Your task to perform on an android device: change your default location settings in chrome Image 0: 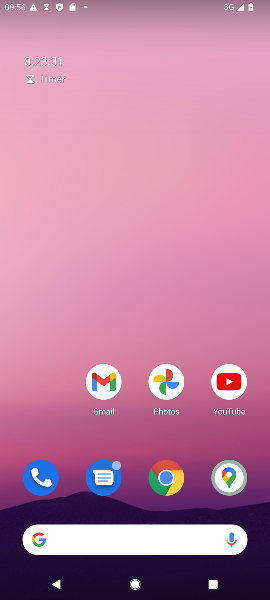
Step 0: click (165, 483)
Your task to perform on an android device: change your default location settings in chrome Image 1: 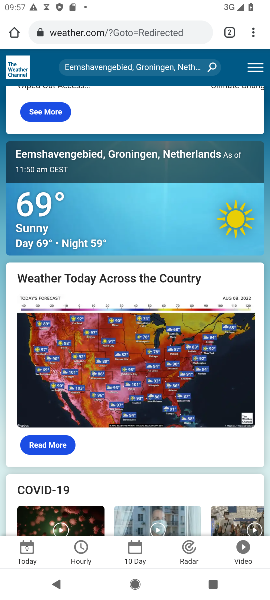
Step 1: click (252, 33)
Your task to perform on an android device: change your default location settings in chrome Image 2: 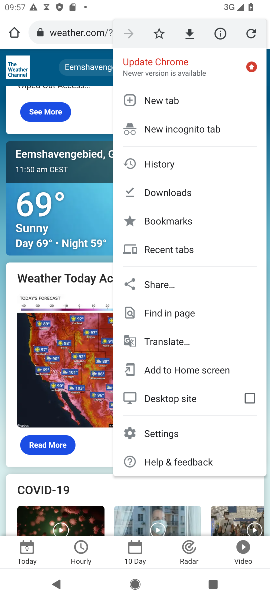
Step 2: click (190, 425)
Your task to perform on an android device: change your default location settings in chrome Image 3: 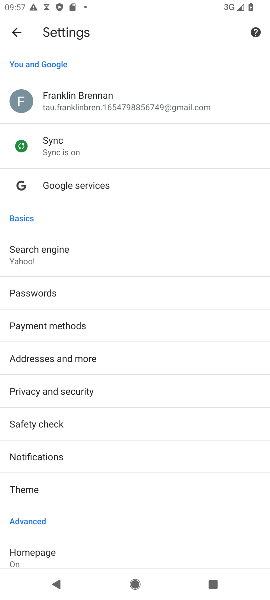
Step 3: drag from (138, 535) to (111, 256)
Your task to perform on an android device: change your default location settings in chrome Image 4: 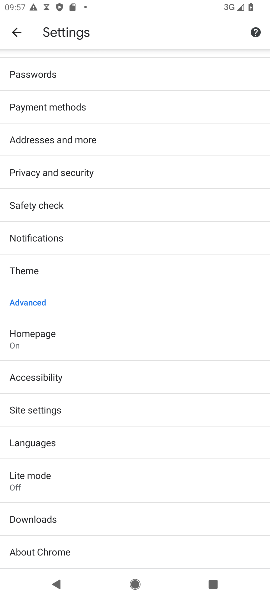
Step 4: click (74, 407)
Your task to perform on an android device: change your default location settings in chrome Image 5: 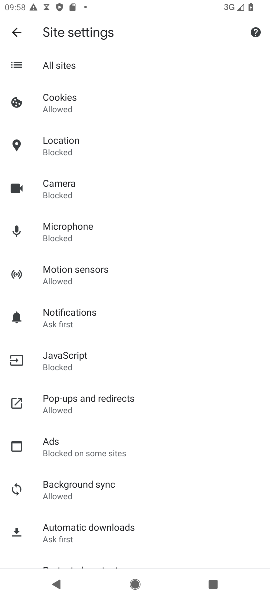
Step 5: click (131, 148)
Your task to perform on an android device: change your default location settings in chrome Image 6: 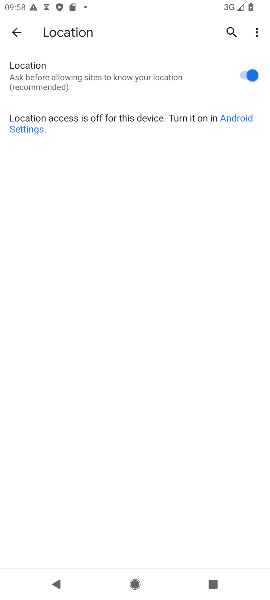
Step 6: click (257, 24)
Your task to perform on an android device: change your default location settings in chrome Image 7: 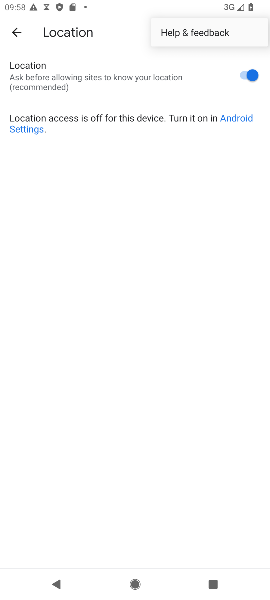
Step 7: task complete